Your task to perform on an android device: What's the weather? Image 0: 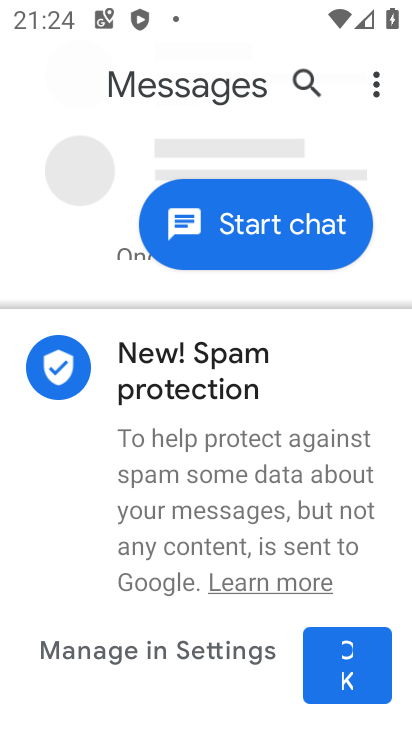
Step 0: press back button
Your task to perform on an android device: What's the weather? Image 1: 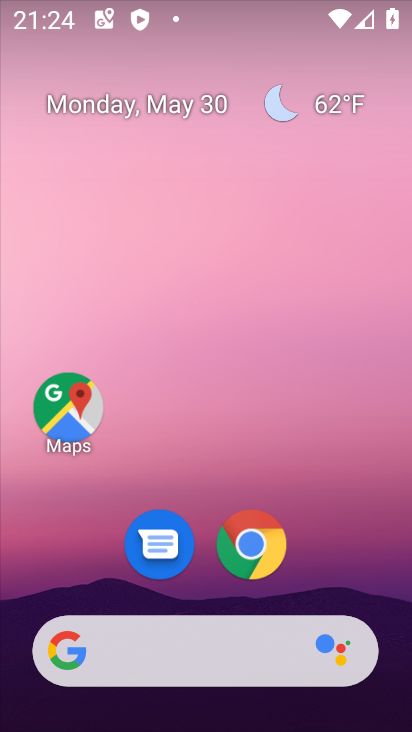
Step 1: drag from (348, 541) to (209, 76)
Your task to perform on an android device: What's the weather? Image 2: 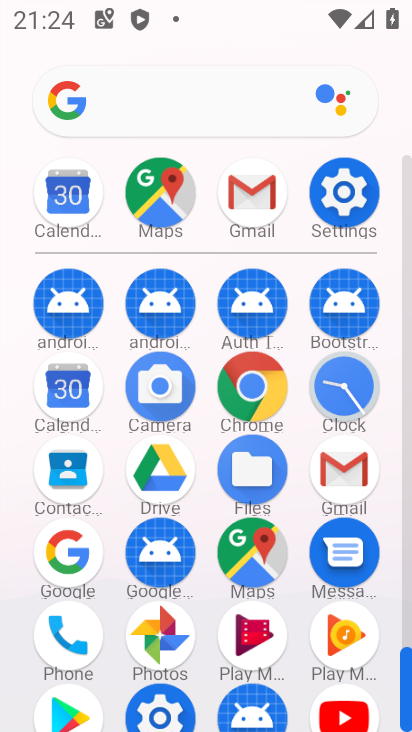
Step 2: click (62, 549)
Your task to perform on an android device: What's the weather? Image 3: 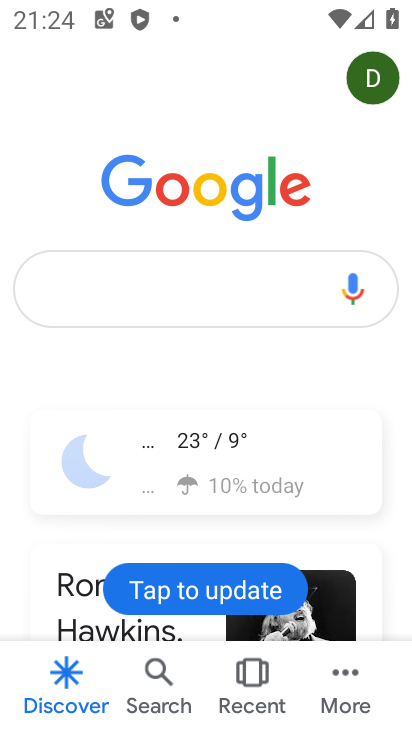
Step 3: click (194, 462)
Your task to perform on an android device: What's the weather? Image 4: 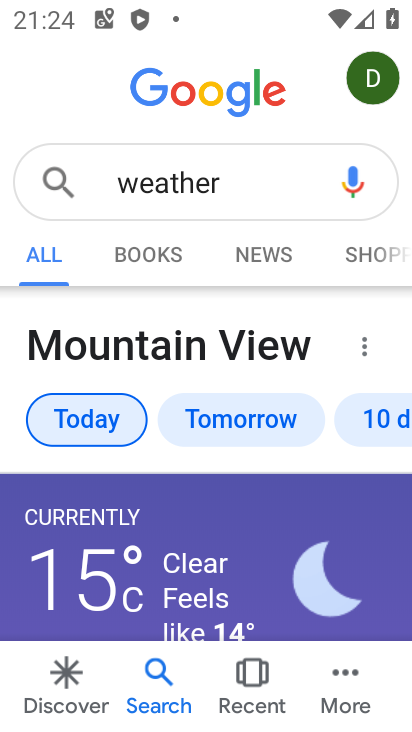
Step 4: task complete